Your task to perform on an android device: install app "LiveIn - Share Your Moment" Image 0: 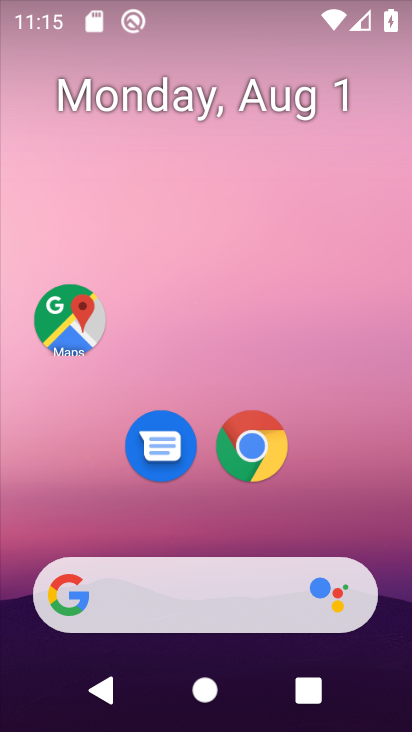
Step 0: drag from (190, 519) to (222, 107)
Your task to perform on an android device: install app "LiveIn - Share Your Moment" Image 1: 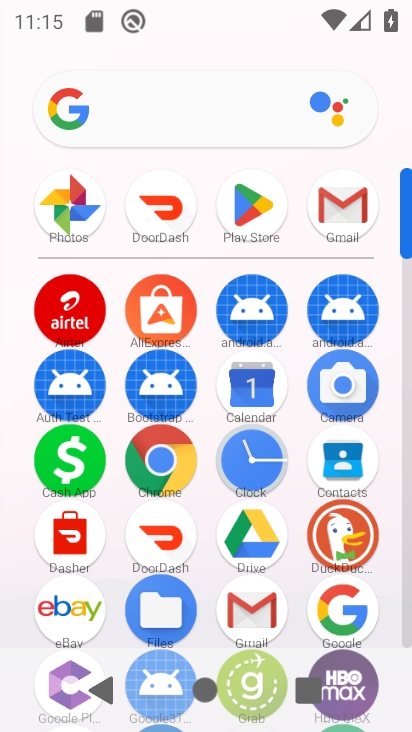
Step 1: click (256, 205)
Your task to perform on an android device: install app "LiveIn - Share Your Moment" Image 2: 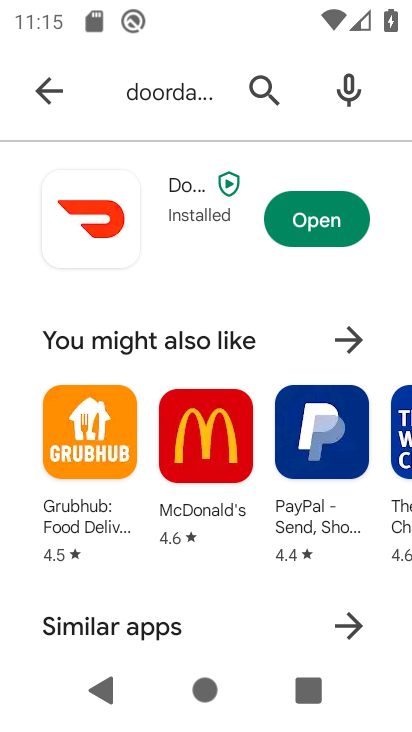
Step 2: click (260, 87)
Your task to perform on an android device: install app "LiveIn - Share Your Moment" Image 3: 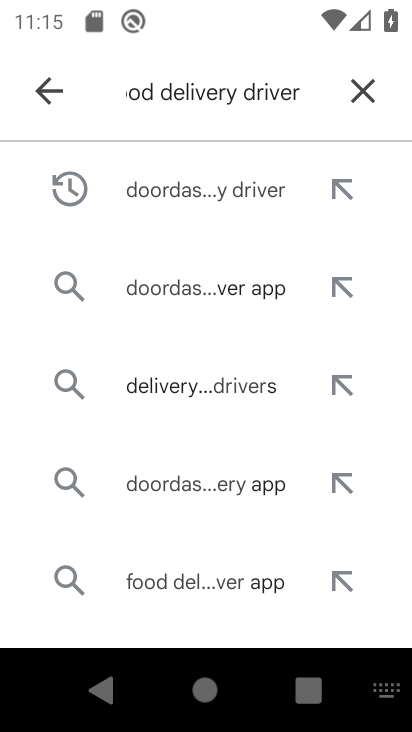
Step 3: click (357, 79)
Your task to perform on an android device: install app "LiveIn - Share Your Moment" Image 4: 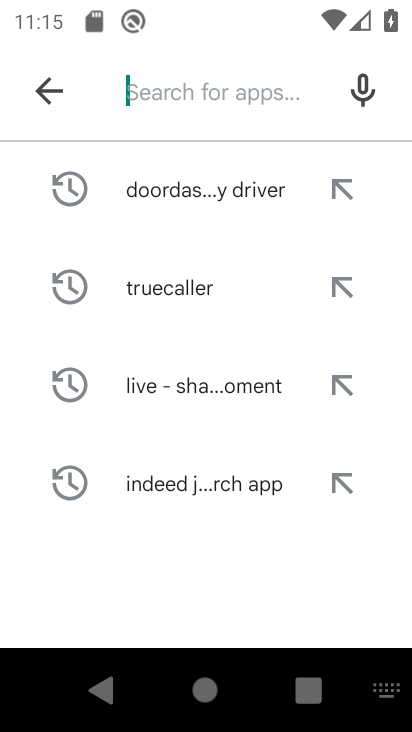
Step 4: type "LiveIn - Share Your Moment"
Your task to perform on an android device: install app "LiveIn - Share Your Moment" Image 5: 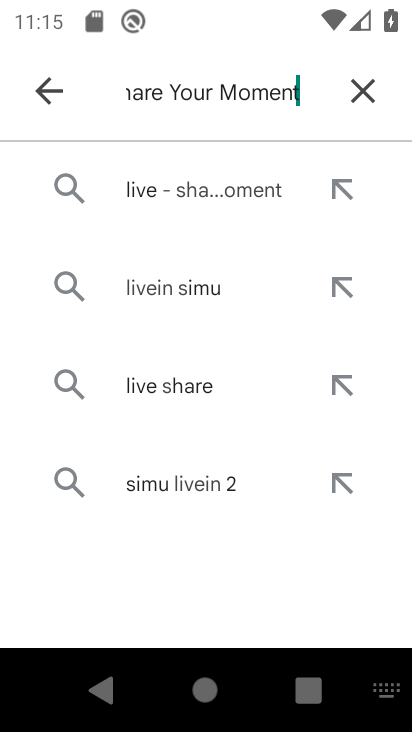
Step 5: type ""
Your task to perform on an android device: install app "LiveIn - Share Your Moment" Image 6: 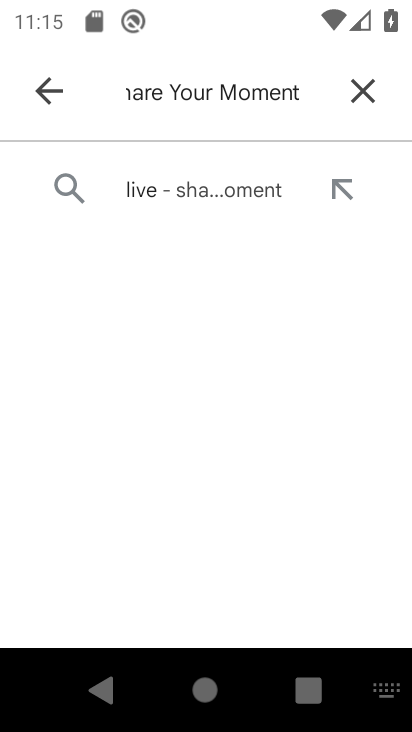
Step 6: click (185, 189)
Your task to perform on an android device: install app "LiveIn - Share Your Moment" Image 7: 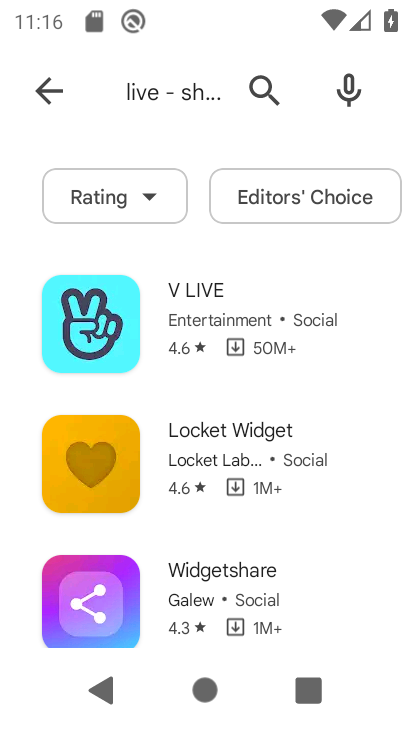
Step 7: task complete